Your task to perform on an android device: find photos in the google photos app Image 0: 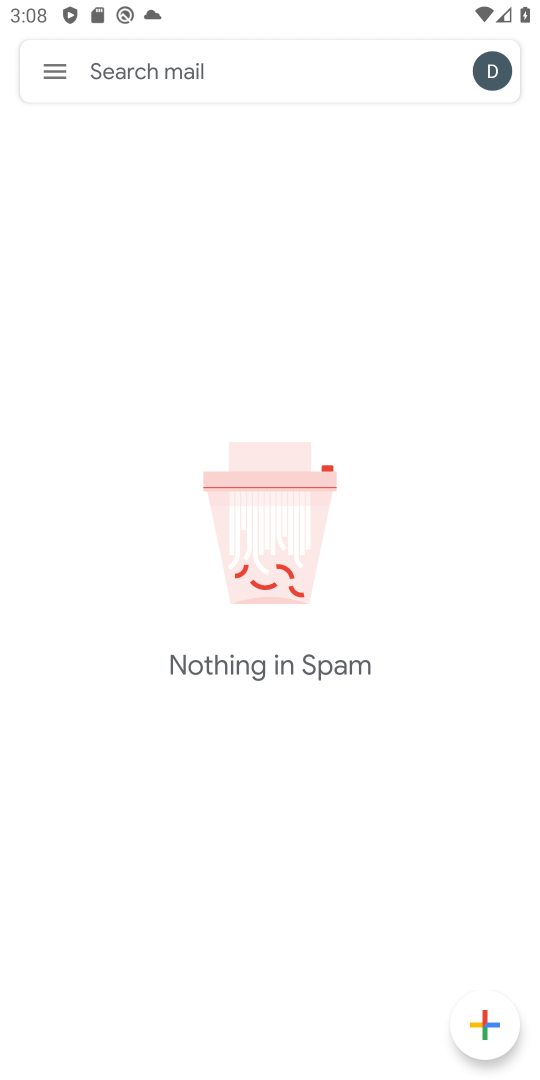
Step 0: press home button
Your task to perform on an android device: find photos in the google photos app Image 1: 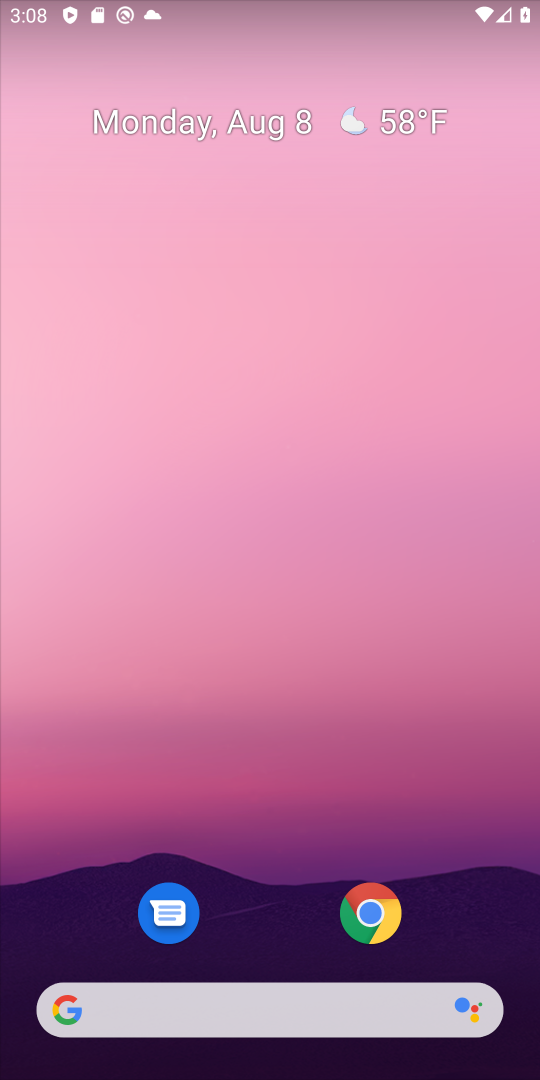
Step 1: drag from (444, 861) to (508, 194)
Your task to perform on an android device: find photos in the google photos app Image 2: 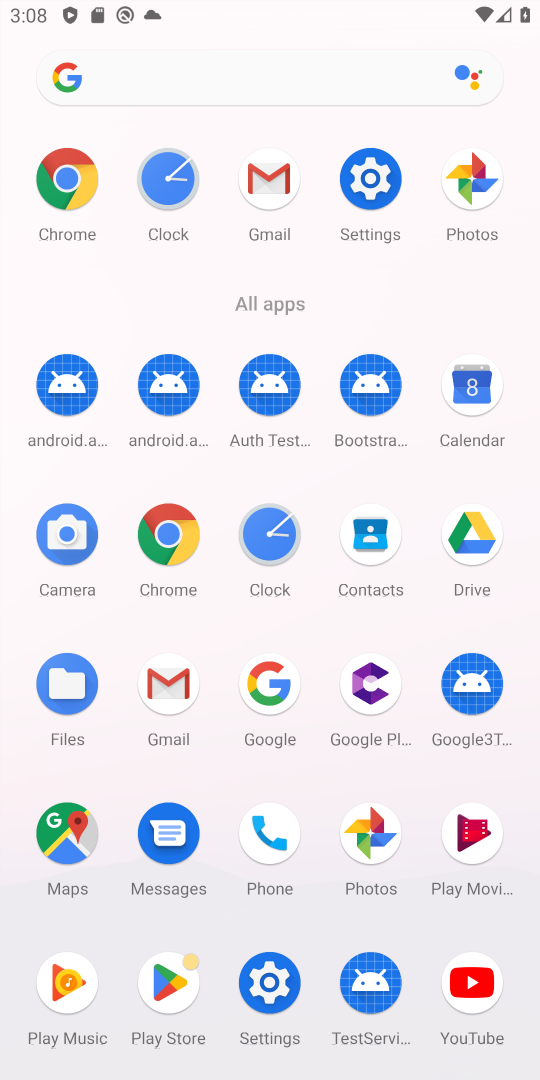
Step 2: click (365, 835)
Your task to perform on an android device: find photos in the google photos app Image 3: 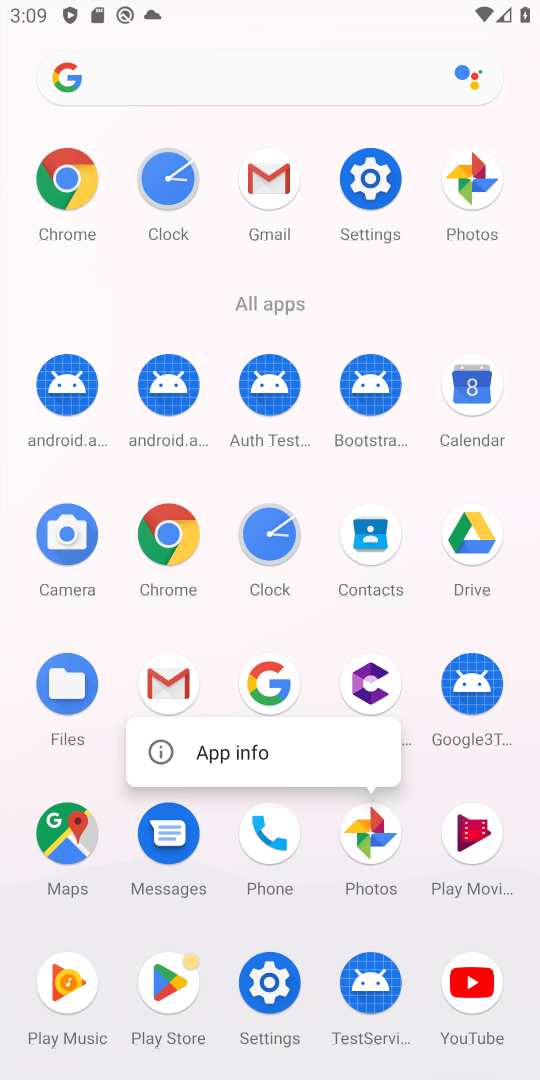
Step 3: click (371, 829)
Your task to perform on an android device: find photos in the google photos app Image 4: 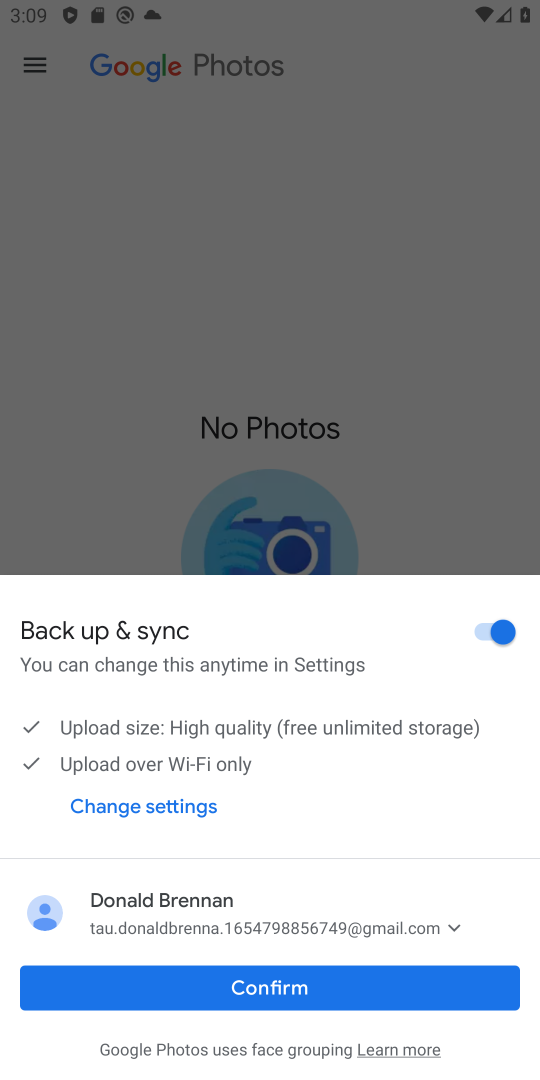
Step 4: click (283, 986)
Your task to perform on an android device: find photos in the google photos app Image 5: 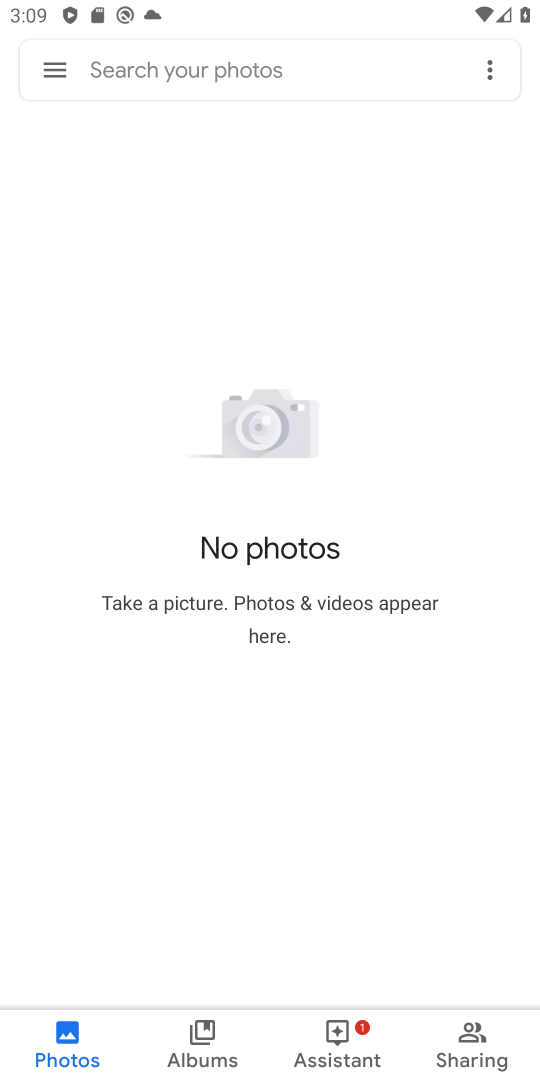
Step 5: task complete